Your task to perform on an android device: Is it going to rain tomorrow? Image 0: 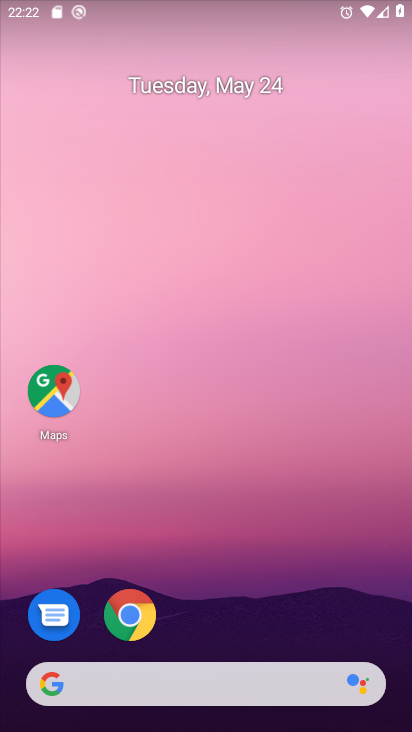
Step 0: drag from (249, 556) to (243, 193)
Your task to perform on an android device: Is it going to rain tomorrow? Image 1: 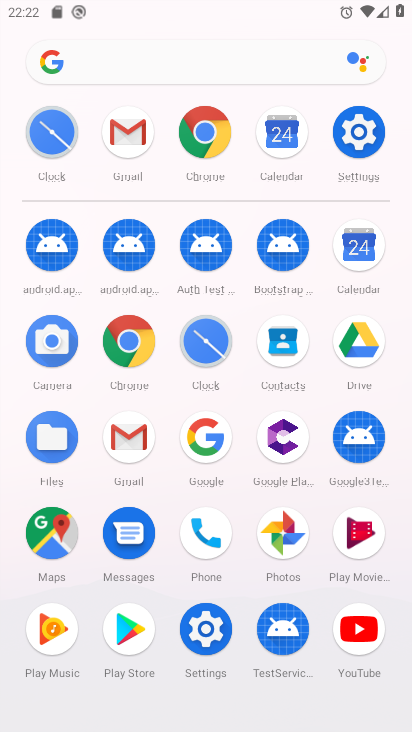
Step 1: click (192, 127)
Your task to perform on an android device: Is it going to rain tomorrow? Image 2: 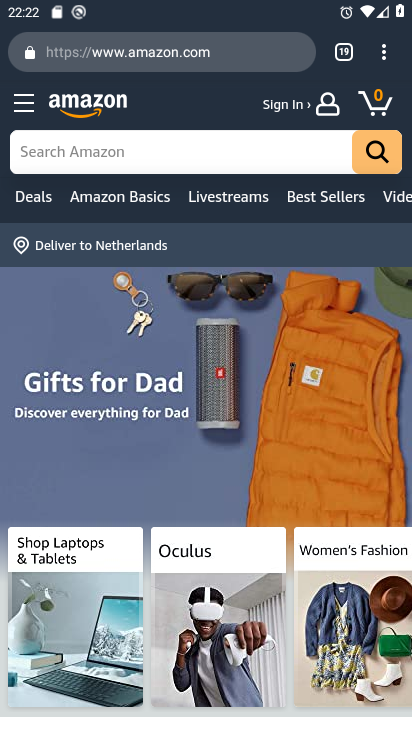
Step 2: click (391, 45)
Your task to perform on an android device: Is it going to rain tomorrow? Image 3: 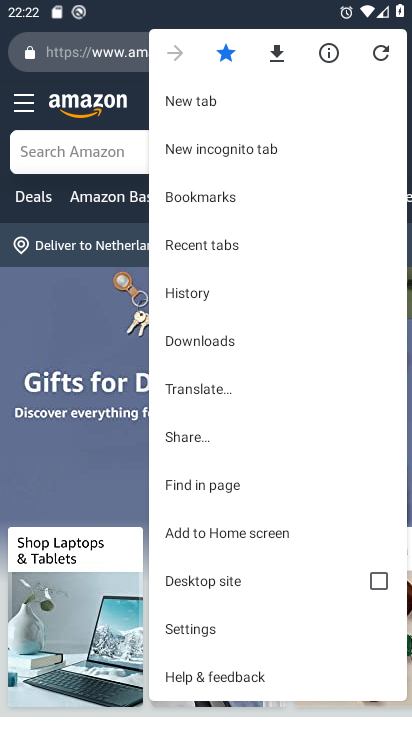
Step 3: click (247, 107)
Your task to perform on an android device: Is it going to rain tomorrow? Image 4: 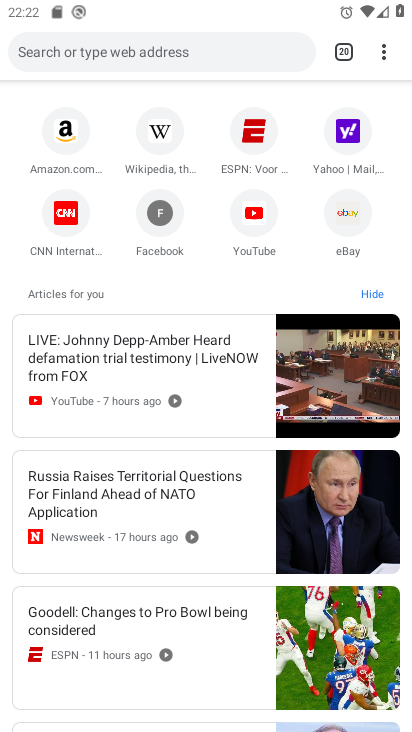
Step 4: click (159, 38)
Your task to perform on an android device: Is it going to rain tomorrow? Image 5: 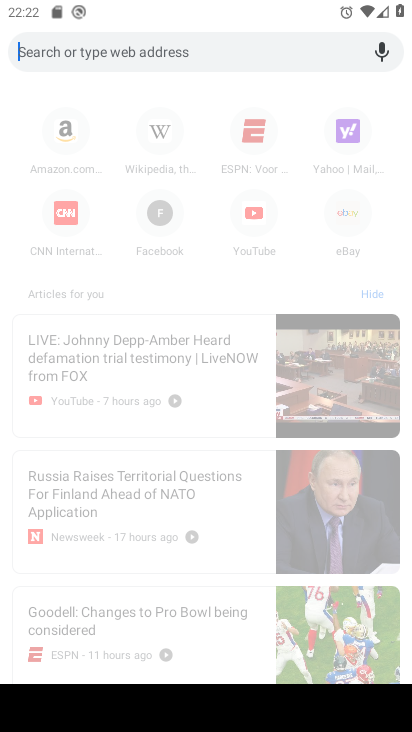
Step 5: type "Is it going to rain tomorrow?"
Your task to perform on an android device: Is it going to rain tomorrow? Image 6: 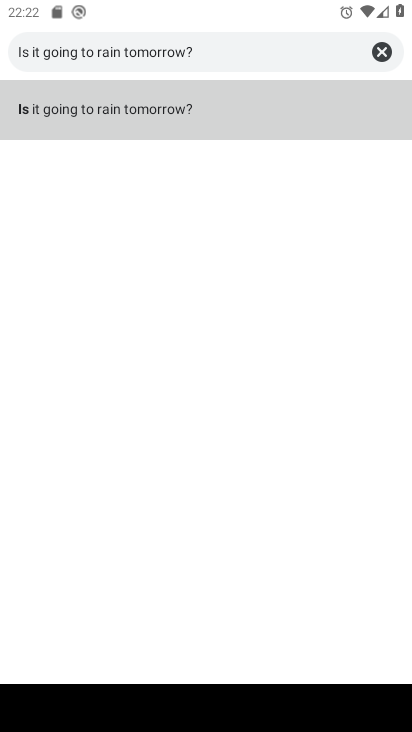
Step 6: click (218, 104)
Your task to perform on an android device: Is it going to rain tomorrow? Image 7: 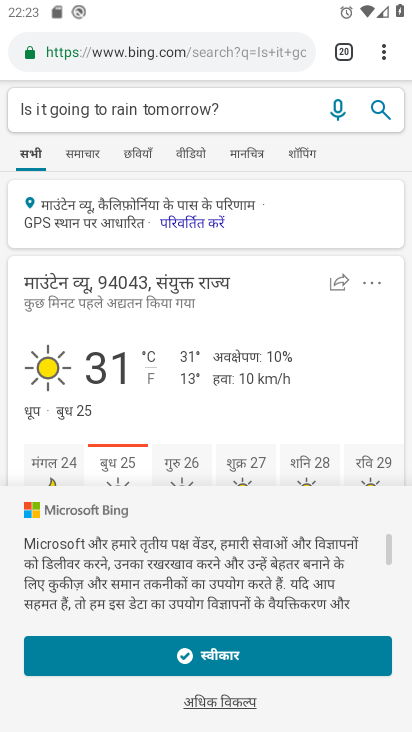
Step 7: task complete